Your task to perform on an android device: turn on bluetooth scan Image 0: 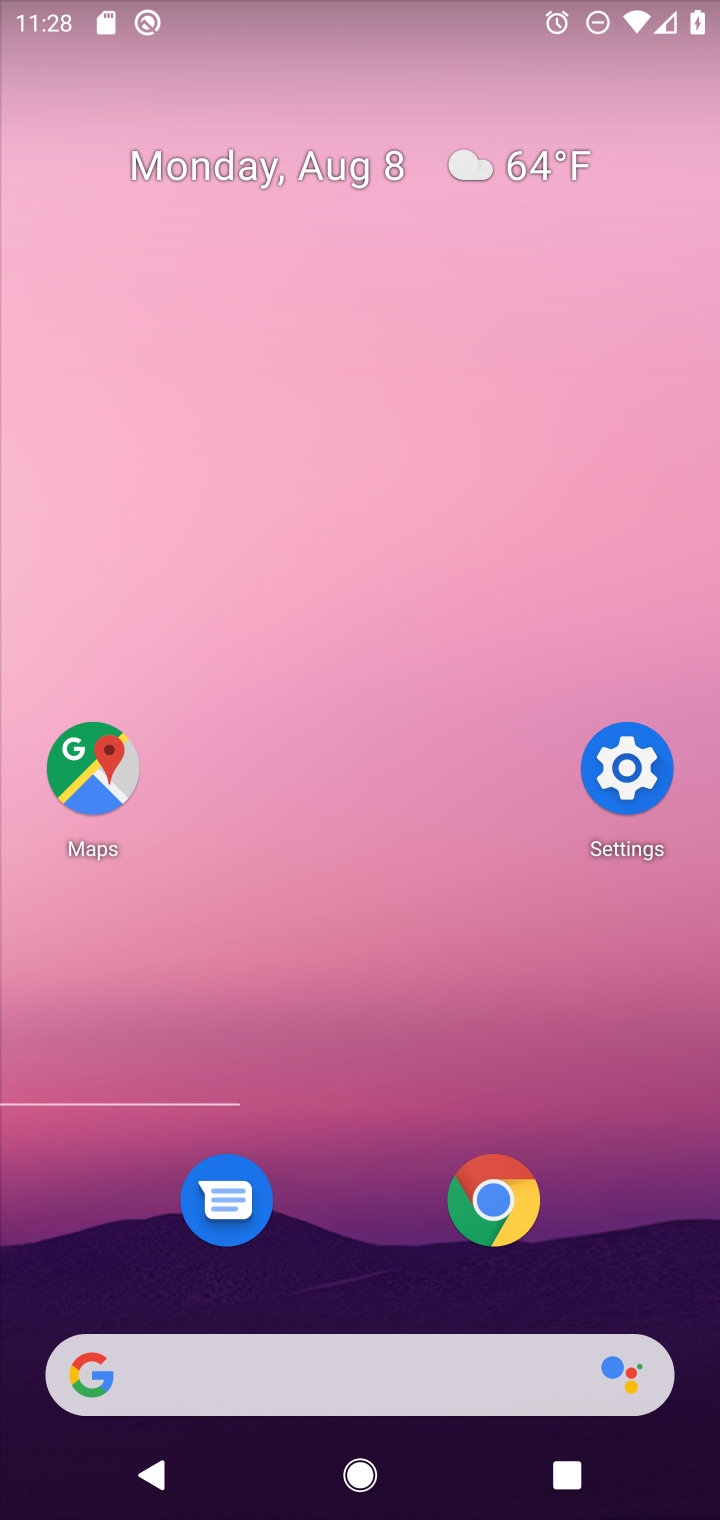
Step 0: press home button
Your task to perform on an android device: turn on bluetooth scan Image 1: 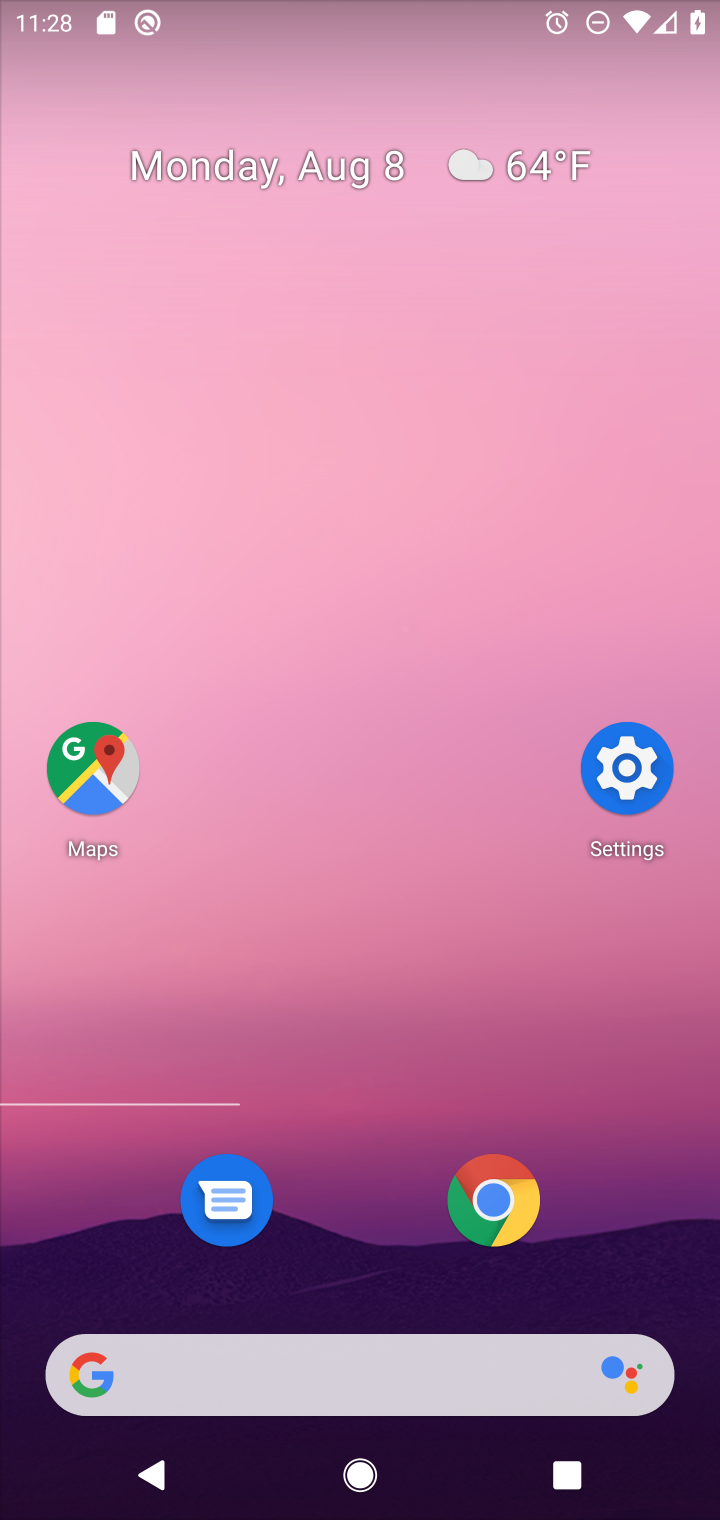
Step 1: click (638, 754)
Your task to perform on an android device: turn on bluetooth scan Image 2: 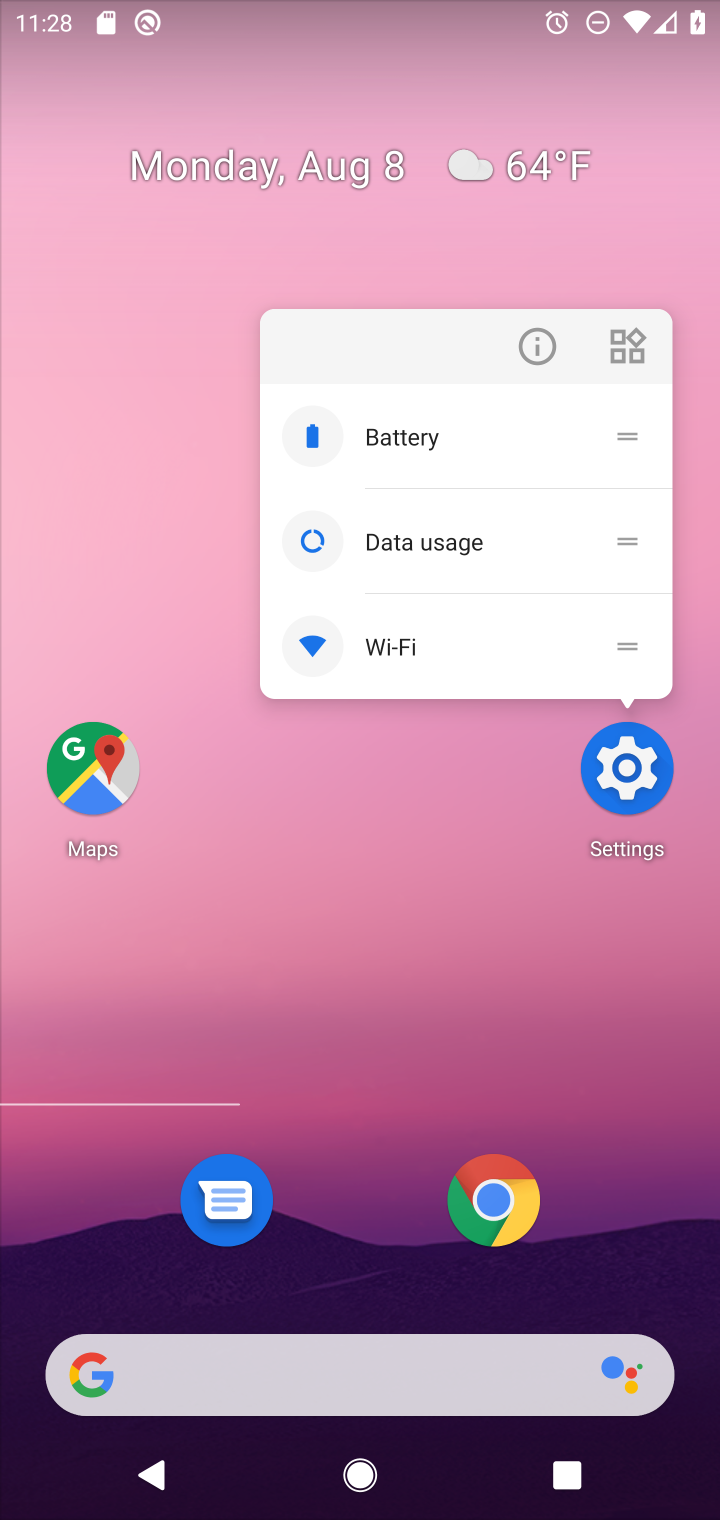
Step 2: click (638, 759)
Your task to perform on an android device: turn on bluetooth scan Image 3: 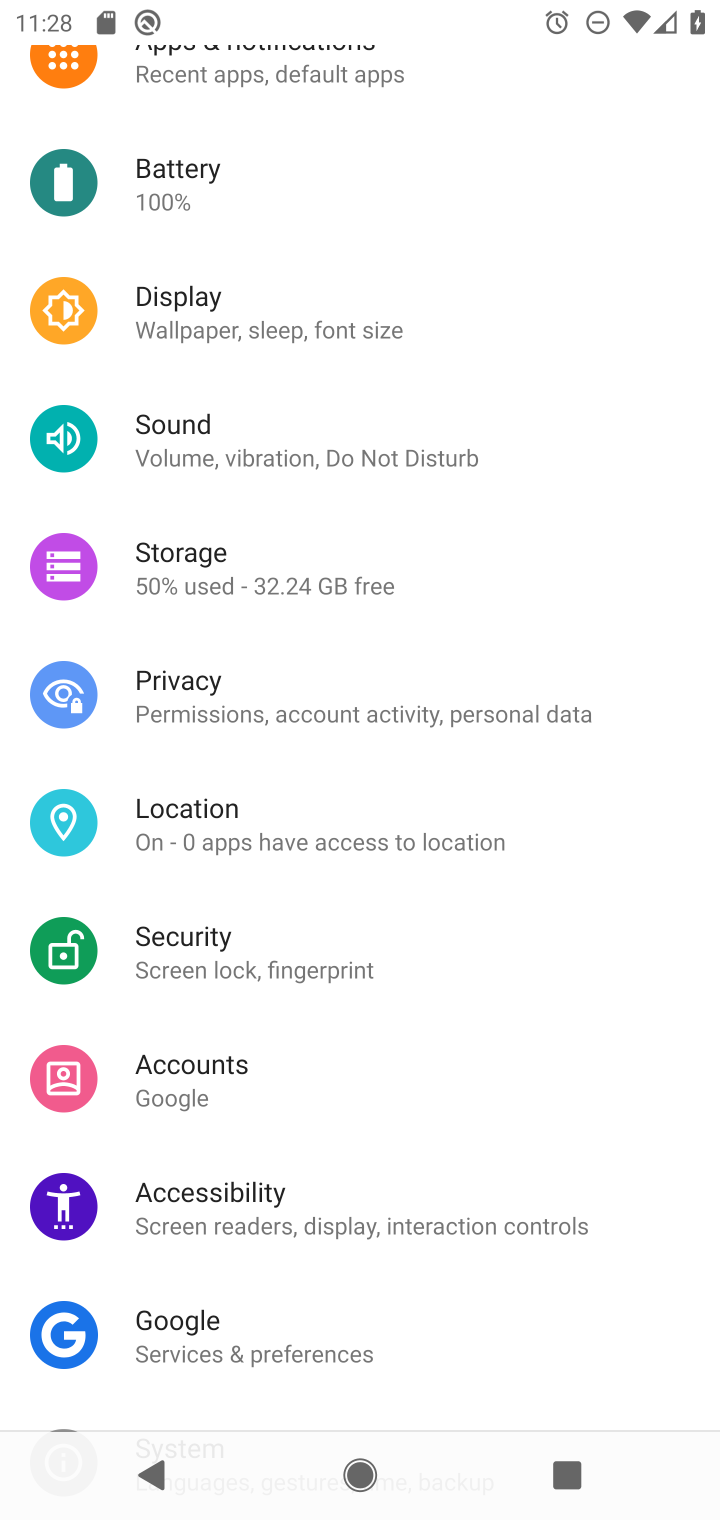
Step 3: click (244, 819)
Your task to perform on an android device: turn on bluetooth scan Image 4: 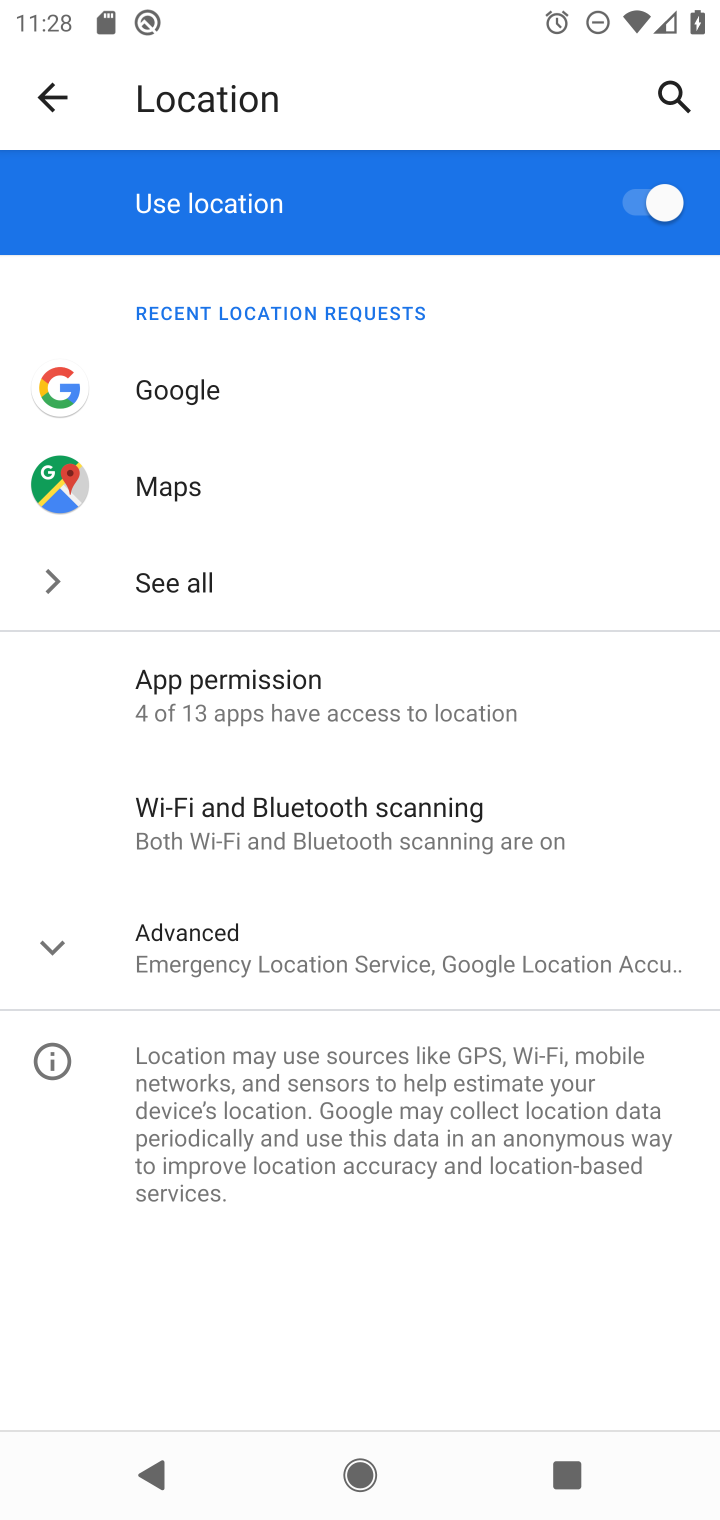
Step 4: click (279, 822)
Your task to perform on an android device: turn on bluetooth scan Image 5: 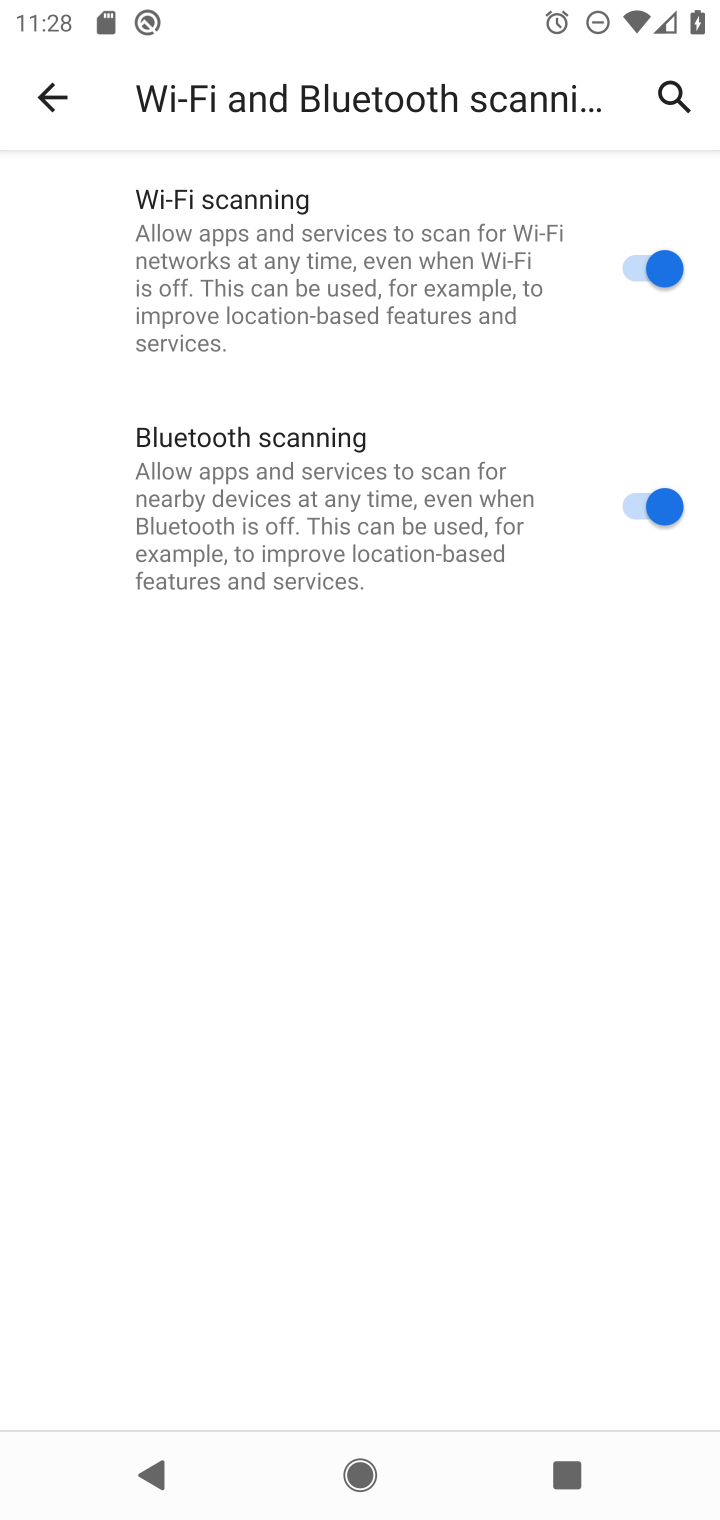
Step 5: task complete